Your task to perform on an android device: move a message to another label in the gmail app Image 0: 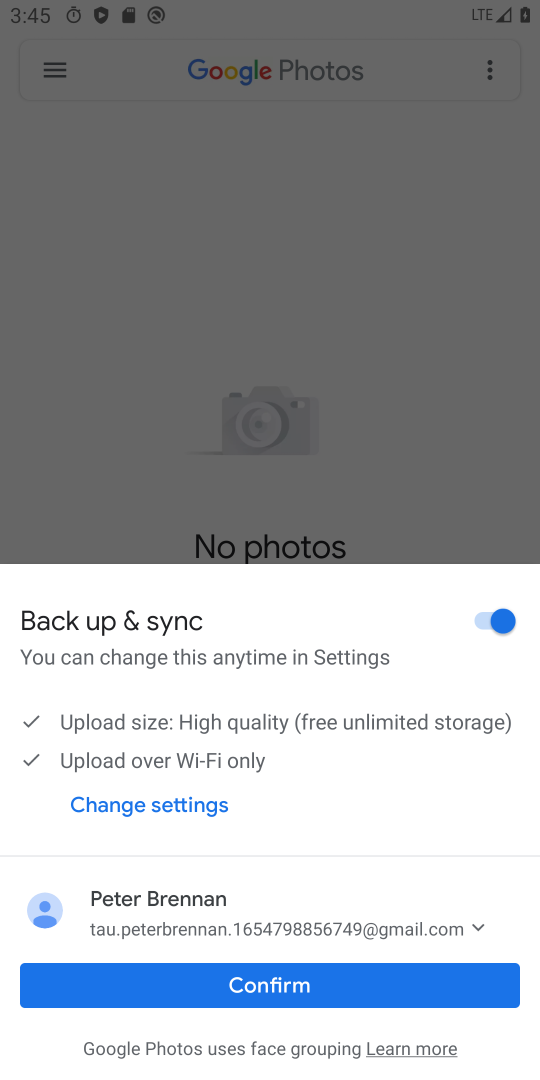
Step 0: press home button
Your task to perform on an android device: move a message to another label in the gmail app Image 1: 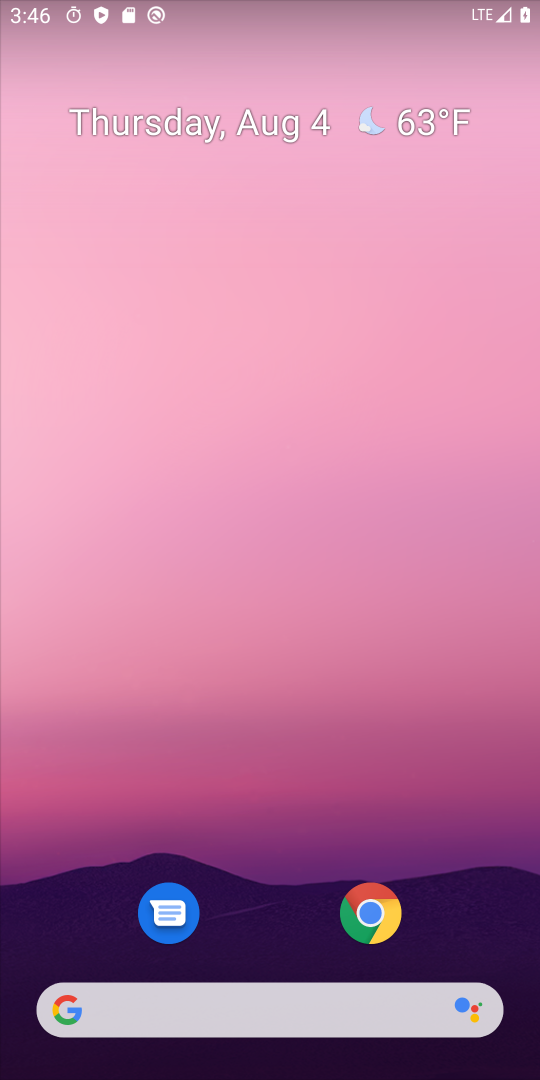
Step 1: drag from (289, 1026) to (404, 2)
Your task to perform on an android device: move a message to another label in the gmail app Image 2: 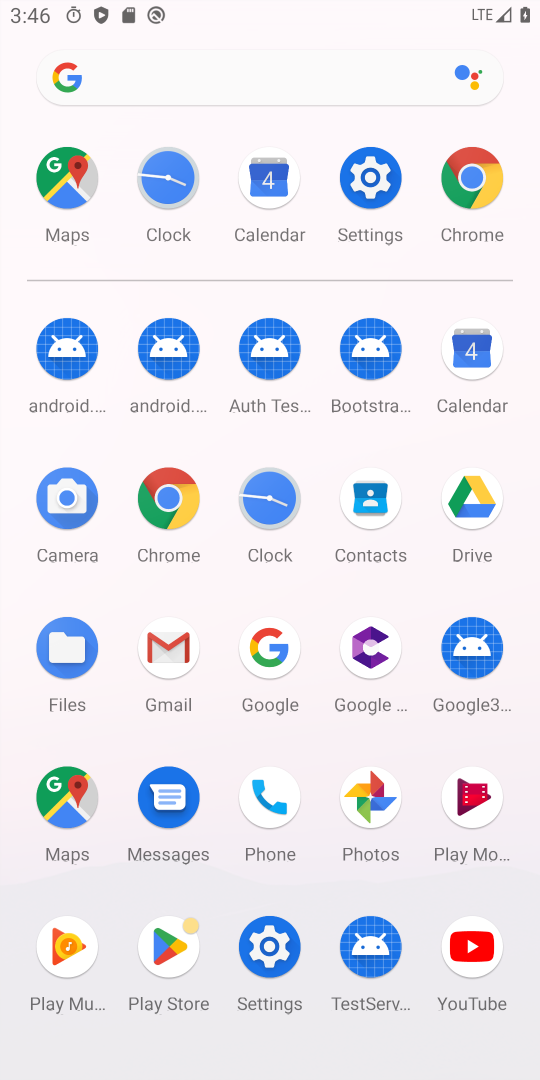
Step 2: click (153, 630)
Your task to perform on an android device: move a message to another label in the gmail app Image 3: 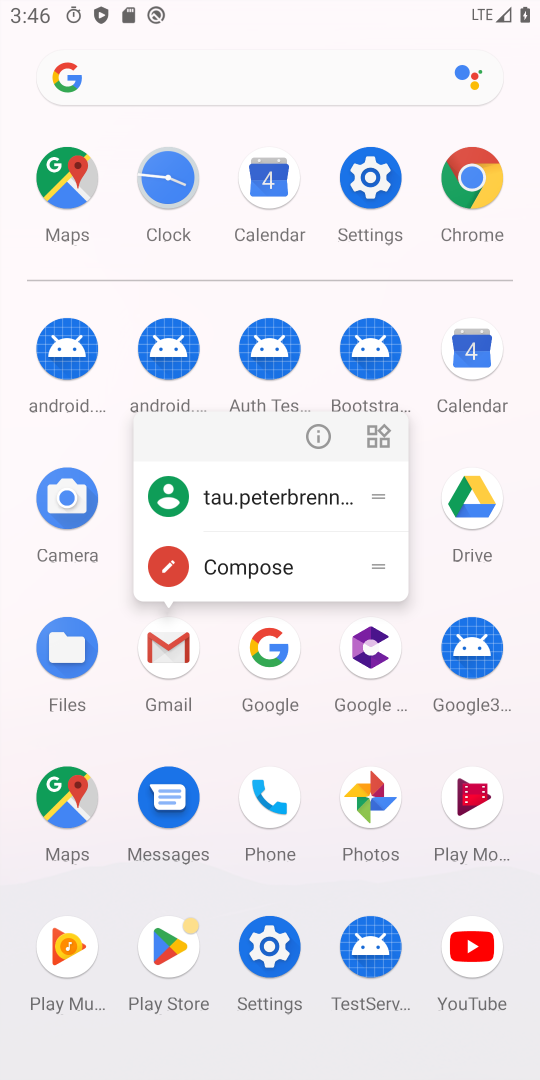
Step 3: click (164, 646)
Your task to perform on an android device: move a message to another label in the gmail app Image 4: 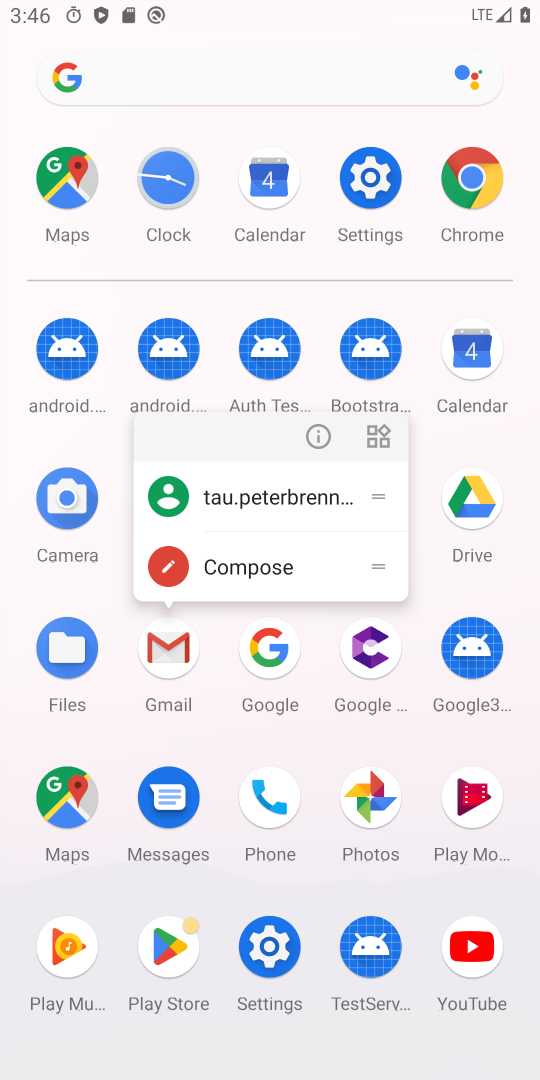
Step 4: click (164, 646)
Your task to perform on an android device: move a message to another label in the gmail app Image 5: 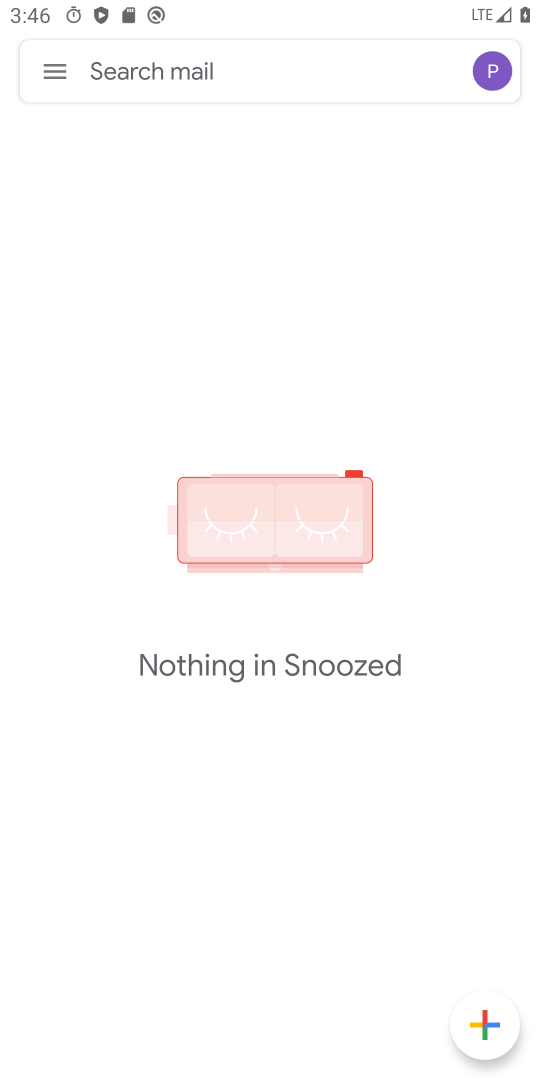
Step 5: click (48, 65)
Your task to perform on an android device: move a message to another label in the gmail app Image 6: 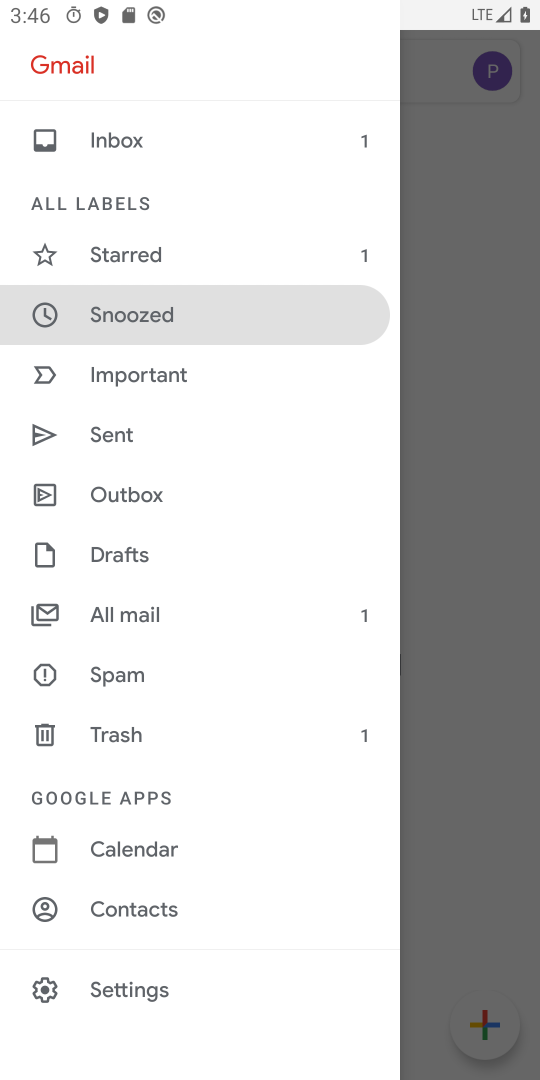
Step 6: click (112, 134)
Your task to perform on an android device: move a message to another label in the gmail app Image 7: 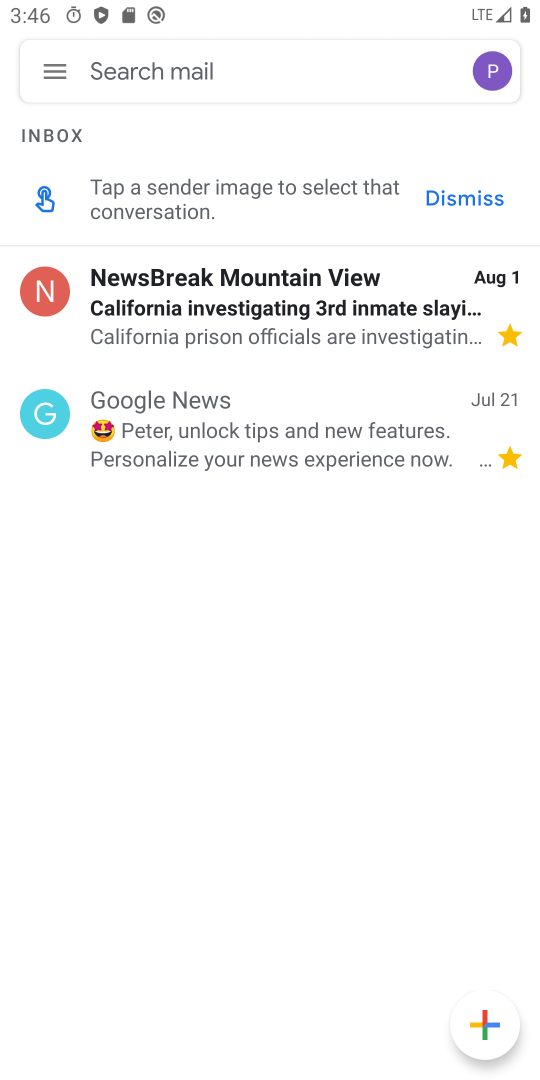
Step 7: click (412, 336)
Your task to perform on an android device: move a message to another label in the gmail app Image 8: 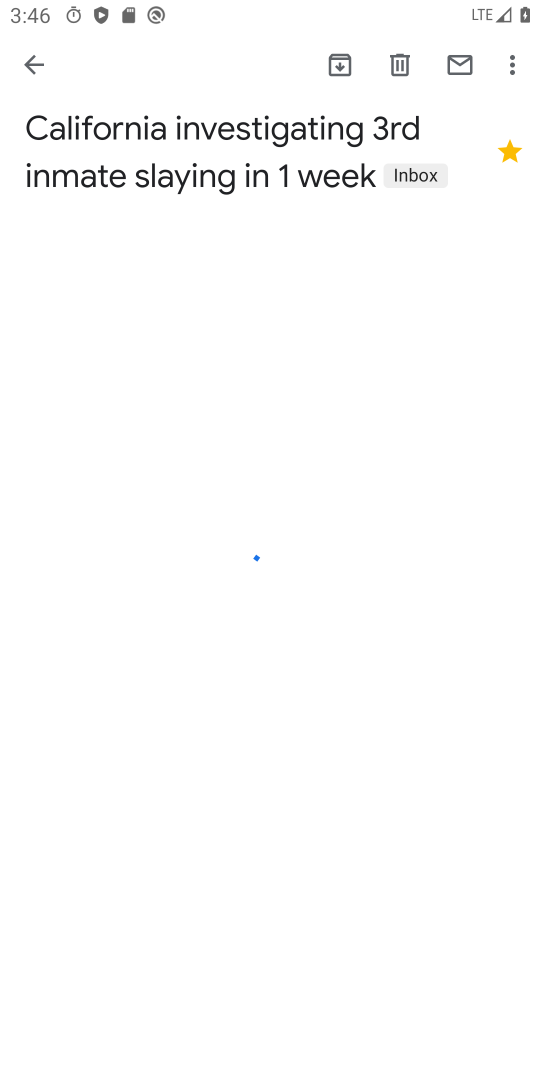
Step 8: click (509, 72)
Your task to perform on an android device: move a message to another label in the gmail app Image 9: 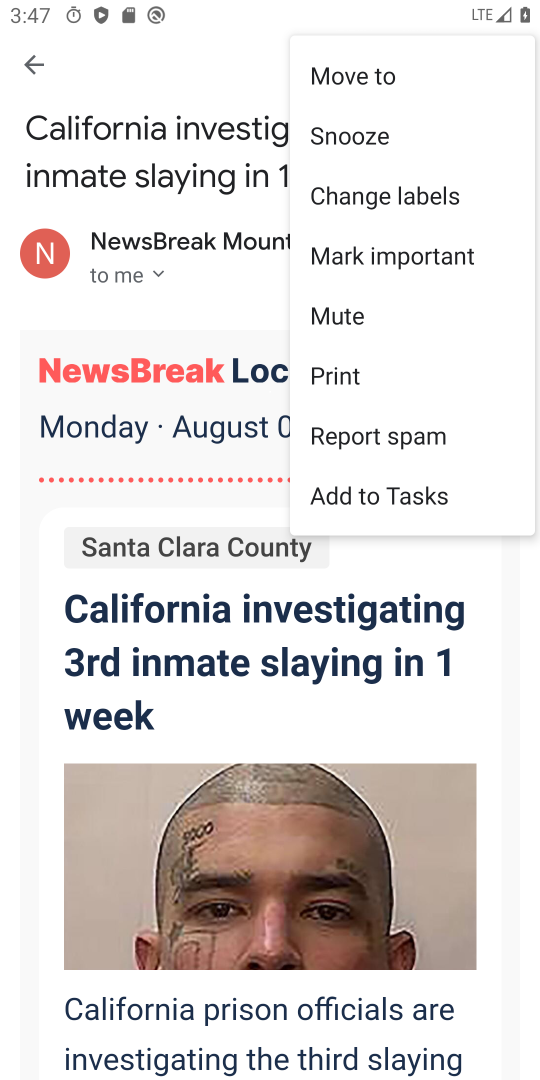
Step 9: click (347, 199)
Your task to perform on an android device: move a message to another label in the gmail app Image 10: 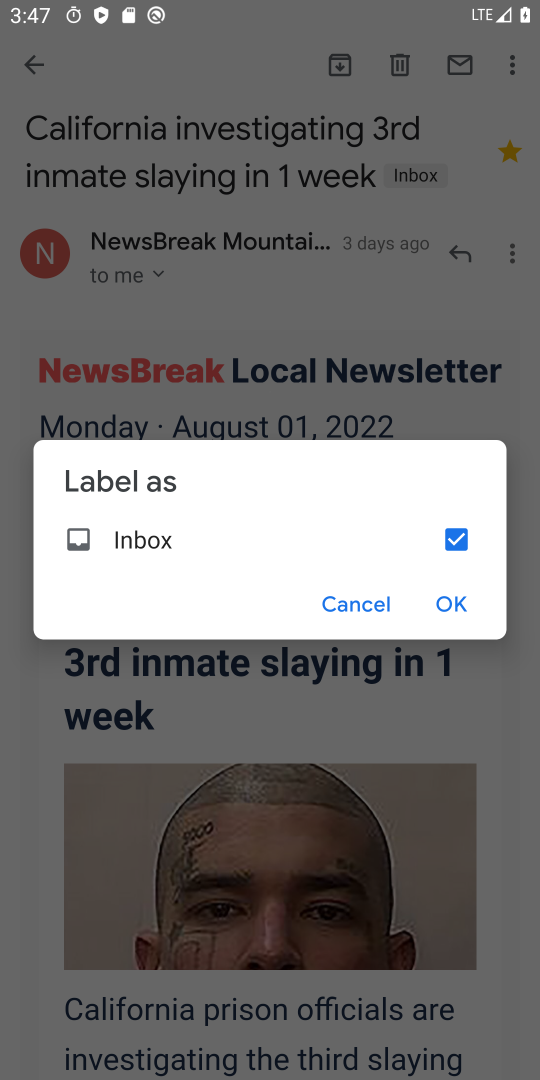
Step 10: click (451, 605)
Your task to perform on an android device: move a message to another label in the gmail app Image 11: 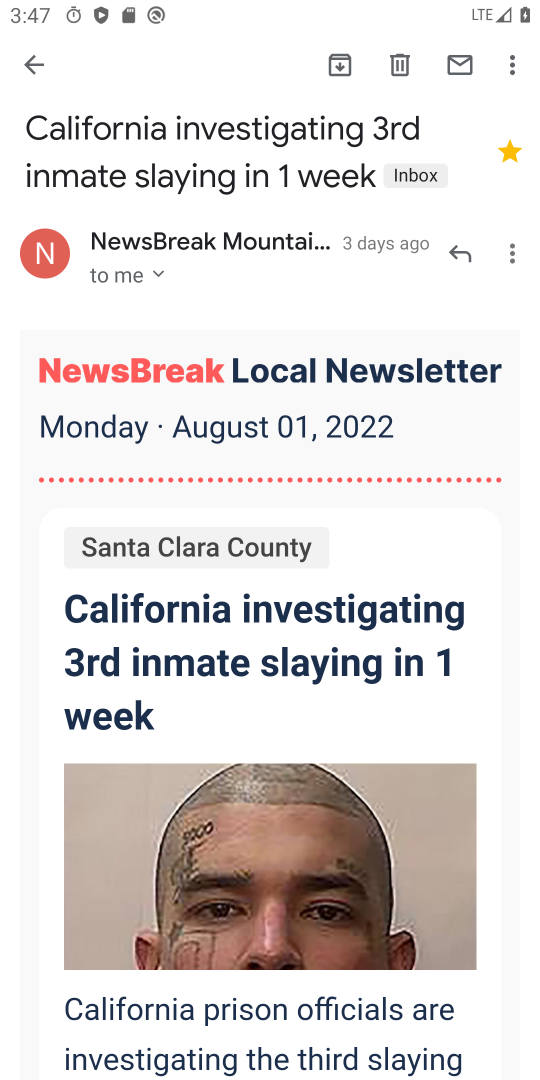
Step 11: task complete